Your task to perform on an android device: open the mobile data screen to see how much data has been used Image 0: 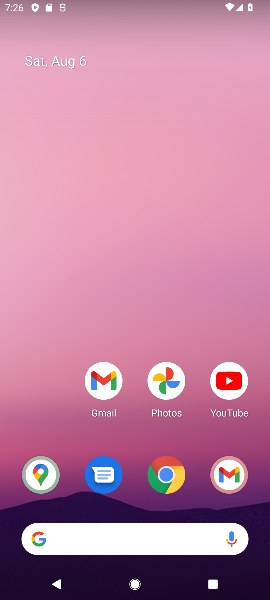
Step 0: drag from (132, 435) to (133, 119)
Your task to perform on an android device: open the mobile data screen to see how much data has been used Image 1: 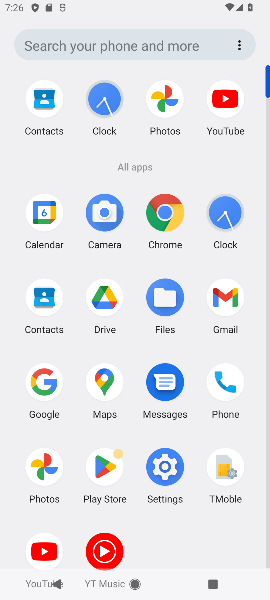
Step 1: click (160, 456)
Your task to perform on an android device: open the mobile data screen to see how much data has been used Image 2: 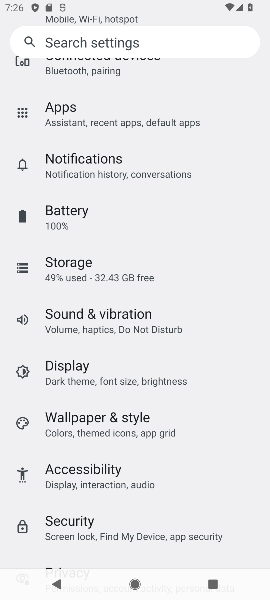
Step 2: drag from (124, 142) to (126, 416)
Your task to perform on an android device: open the mobile data screen to see how much data has been used Image 3: 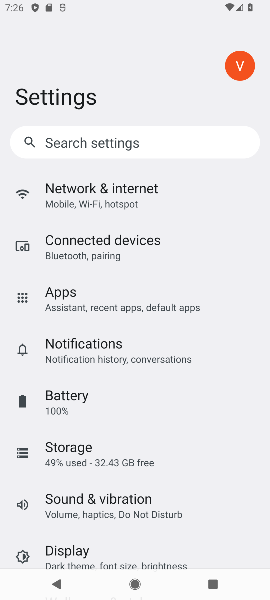
Step 3: click (91, 199)
Your task to perform on an android device: open the mobile data screen to see how much data has been used Image 4: 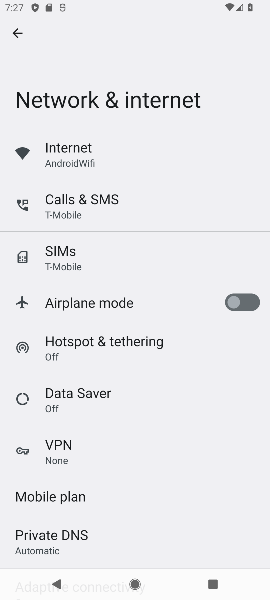
Step 4: click (103, 170)
Your task to perform on an android device: open the mobile data screen to see how much data has been used Image 5: 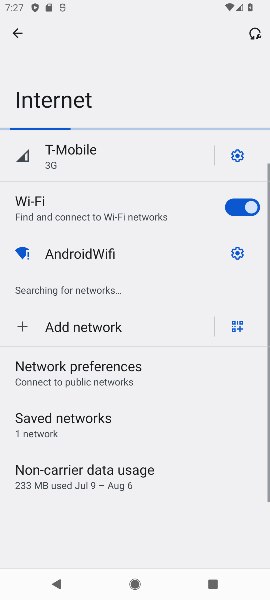
Step 5: task complete